Your task to perform on an android device: Show the shopping cart on target.com. Search for "usb-b" on target.com, select the first entry, and add it to the cart. Image 0: 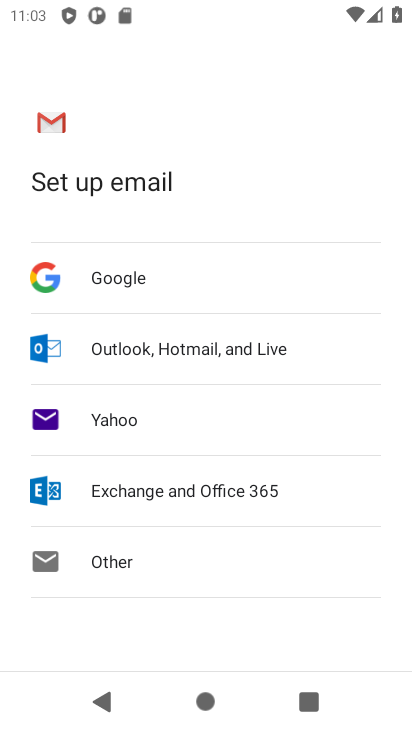
Step 0: press home button
Your task to perform on an android device: Show the shopping cart on target.com. Search for "usb-b" on target.com, select the first entry, and add it to the cart. Image 1: 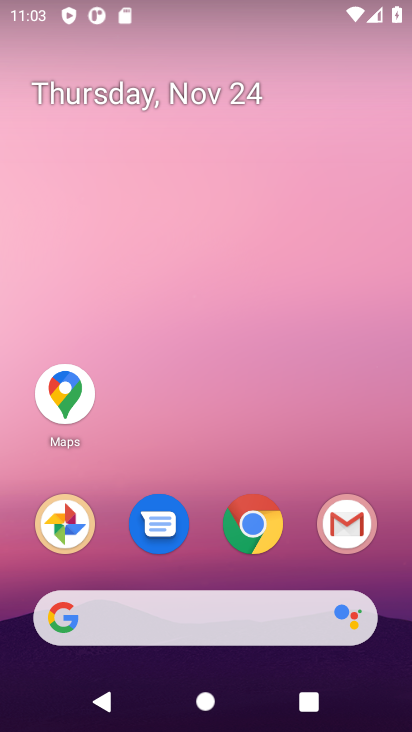
Step 1: click (251, 525)
Your task to perform on an android device: Show the shopping cart on target.com. Search for "usb-b" on target.com, select the first entry, and add it to the cart. Image 2: 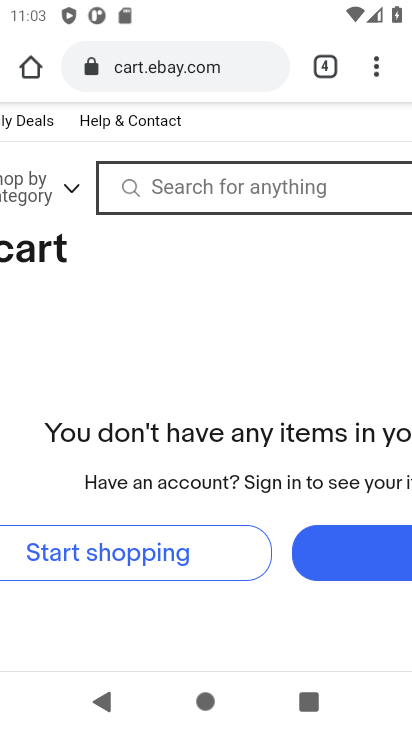
Step 2: click (166, 65)
Your task to perform on an android device: Show the shopping cart on target.com. Search for "usb-b" on target.com, select the first entry, and add it to the cart. Image 3: 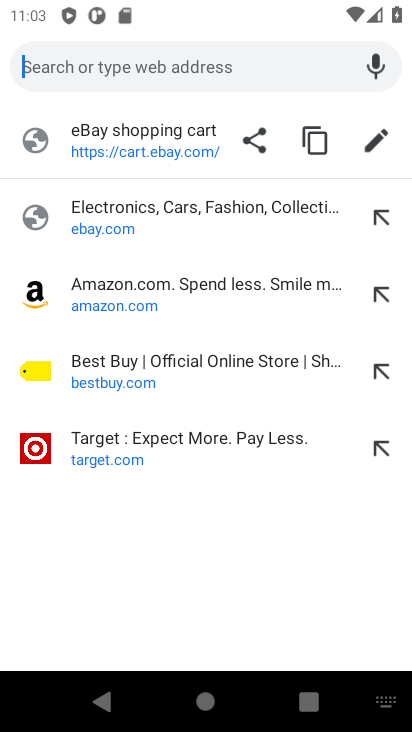
Step 3: click (104, 445)
Your task to perform on an android device: Show the shopping cart on target.com. Search for "usb-b" on target.com, select the first entry, and add it to the cart. Image 4: 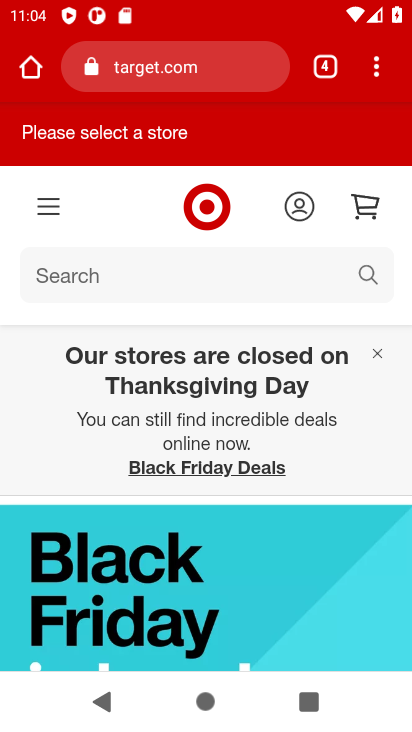
Step 4: click (373, 208)
Your task to perform on an android device: Show the shopping cart on target.com. Search for "usb-b" on target.com, select the first entry, and add it to the cart. Image 5: 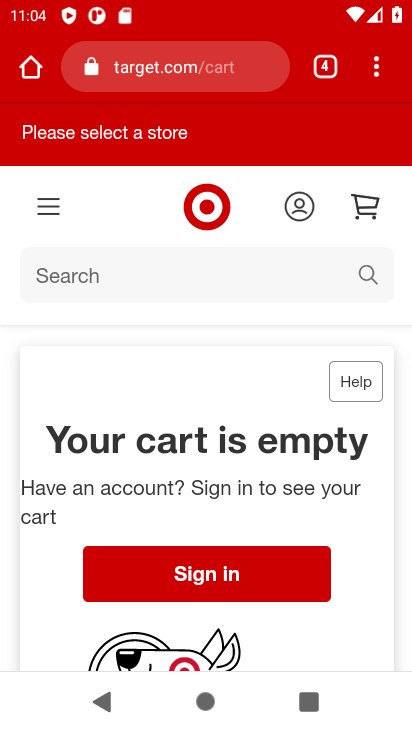
Step 5: click (364, 280)
Your task to perform on an android device: Show the shopping cart on target.com. Search for "usb-b" on target.com, select the first entry, and add it to the cart. Image 6: 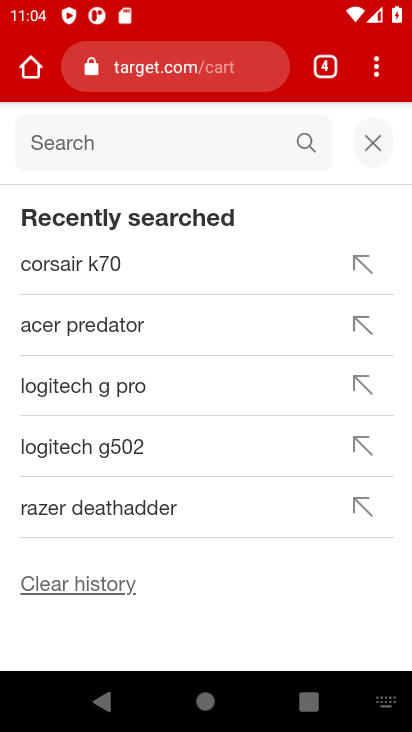
Step 6: type "usb-b"
Your task to perform on an android device: Show the shopping cart on target.com. Search for "usb-b" on target.com, select the first entry, and add it to the cart. Image 7: 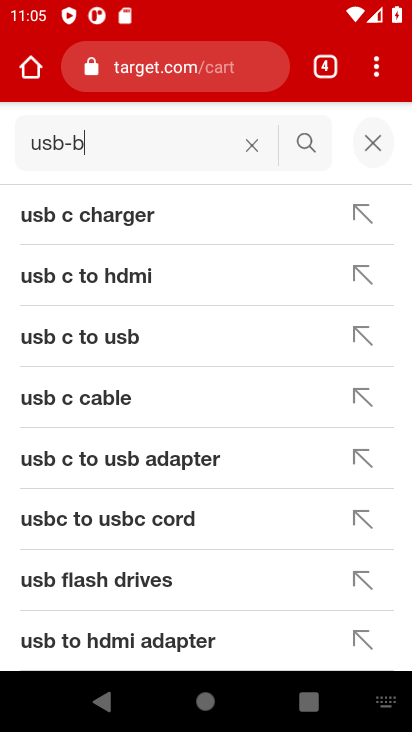
Step 7: click (298, 146)
Your task to perform on an android device: Show the shopping cart on target.com. Search for "usb-b" on target.com, select the first entry, and add it to the cart. Image 8: 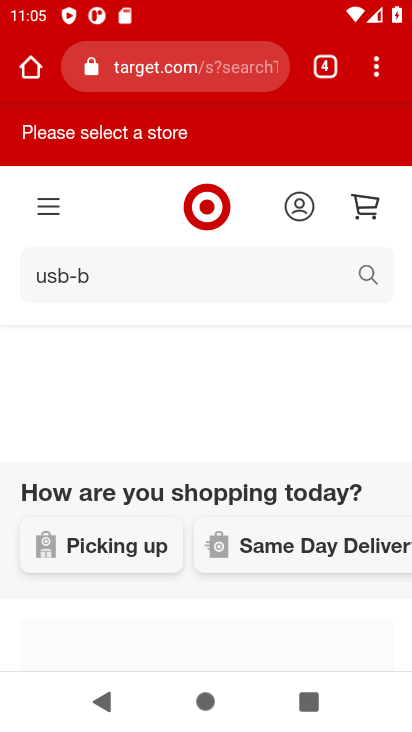
Step 8: drag from (178, 500) to (160, 185)
Your task to perform on an android device: Show the shopping cart on target.com. Search for "usb-b" on target.com, select the first entry, and add it to the cart. Image 9: 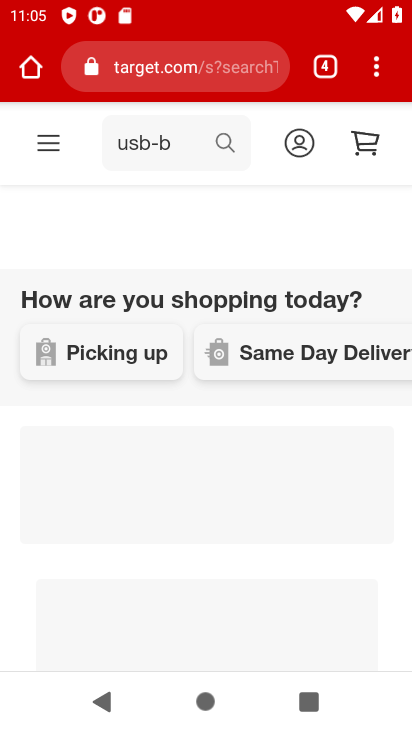
Step 9: drag from (146, 553) to (121, 251)
Your task to perform on an android device: Show the shopping cart on target.com. Search for "usb-b" on target.com, select the first entry, and add it to the cart. Image 10: 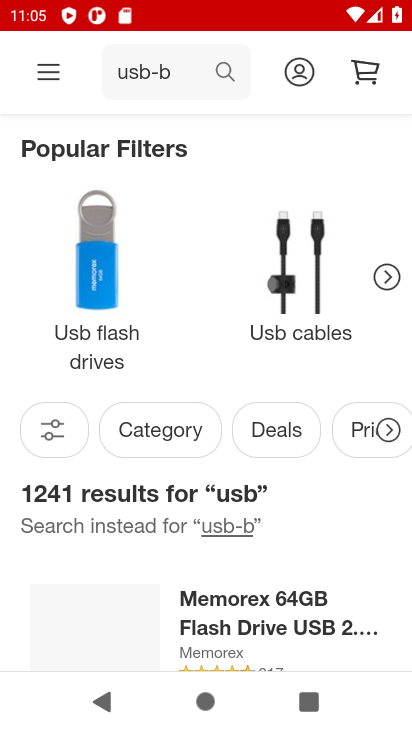
Step 10: drag from (147, 542) to (130, 226)
Your task to perform on an android device: Show the shopping cart on target.com. Search for "usb-b" on target.com, select the first entry, and add it to the cart. Image 11: 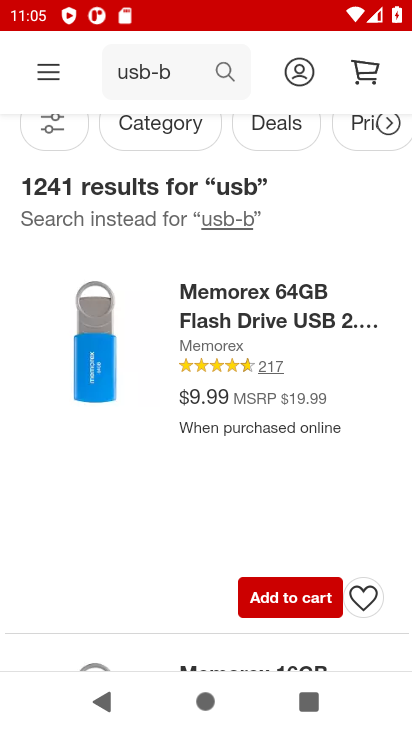
Step 11: drag from (158, 526) to (150, 402)
Your task to perform on an android device: Show the shopping cart on target.com. Search for "usb-b" on target.com, select the first entry, and add it to the cart. Image 12: 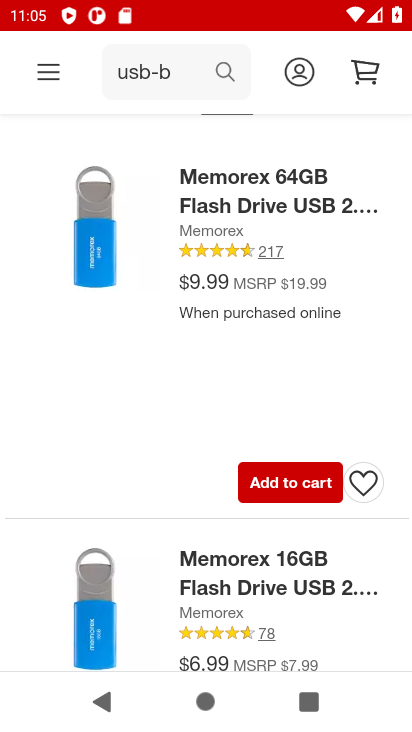
Step 12: click (112, 266)
Your task to perform on an android device: Show the shopping cart on target.com. Search for "usb-b" on target.com, select the first entry, and add it to the cart. Image 13: 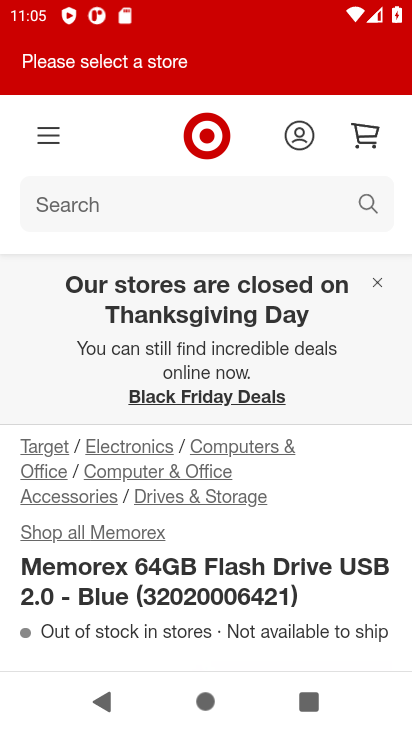
Step 13: task complete